Your task to perform on an android device: toggle show notifications on the lock screen Image 0: 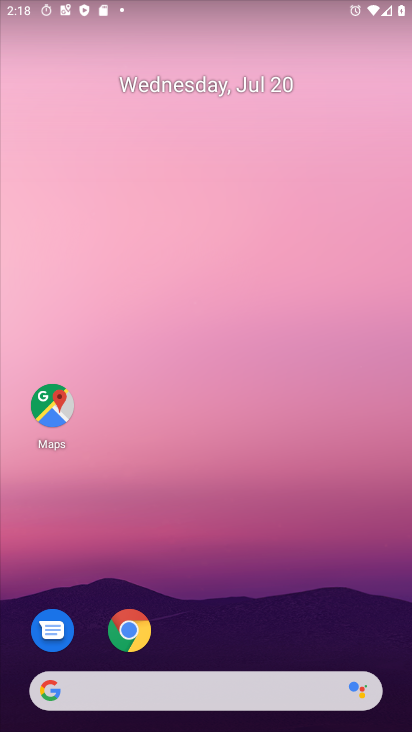
Step 0: drag from (220, 687) to (365, 118)
Your task to perform on an android device: toggle show notifications on the lock screen Image 1: 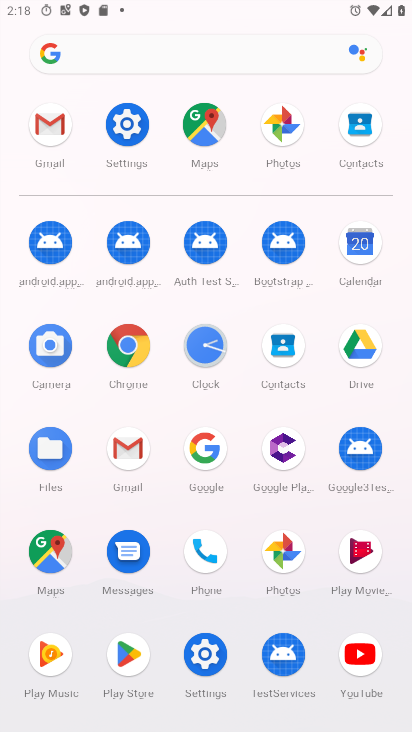
Step 1: click (127, 135)
Your task to perform on an android device: toggle show notifications on the lock screen Image 2: 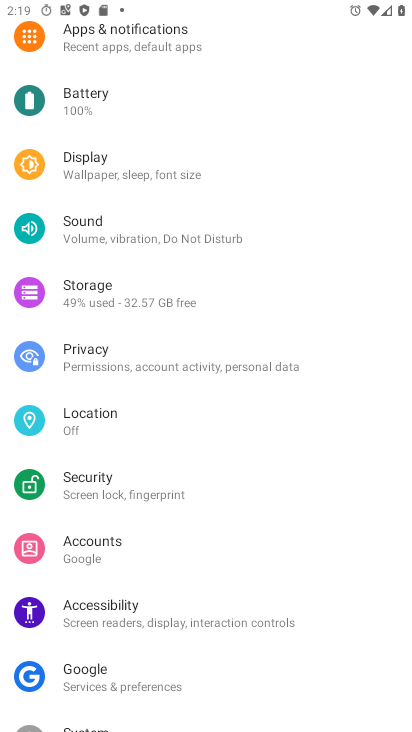
Step 2: drag from (294, 128) to (238, 566)
Your task to perform on an android device: toggle show notifications on the lock screen Image 3: 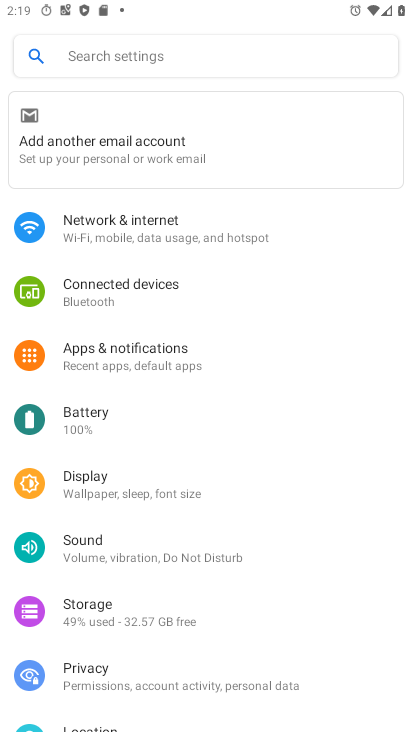
Step 3: click (159, 352)
Your task to perform on an android device: toggle show notifications on the lock screen Image 4: 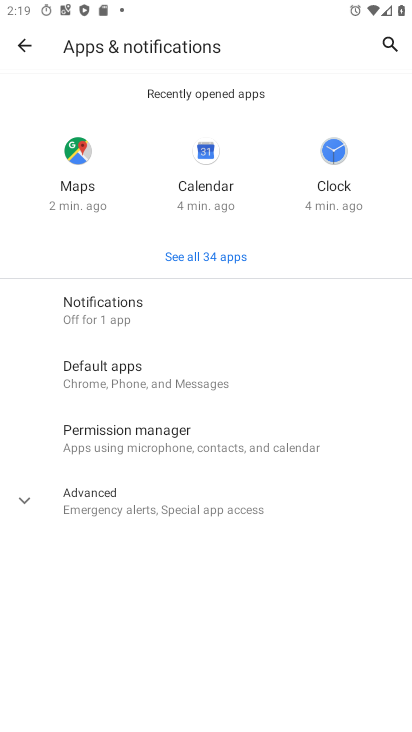
Step 4: click (117, 311)
Your task to perform on an android device: toggle show notifications on the lock screen Image 5: 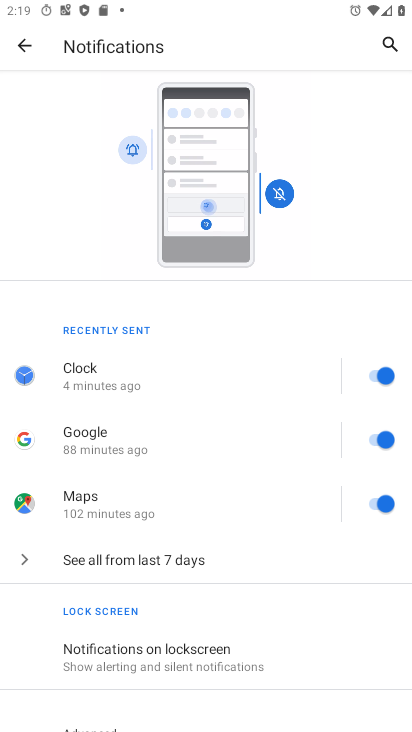
Step 5: click (201, 654)
Your task to perform on an android device: toggle show notifications on the lock screen Image 6: 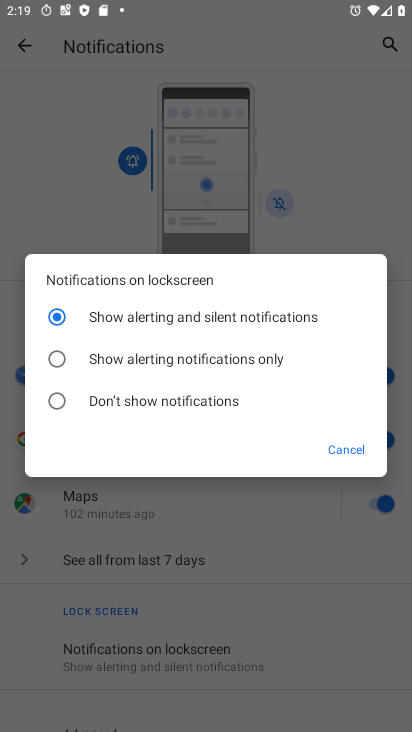
Step 6: click (58, 393)
Your task to perform on an android device: toggle show notifications on the lock screen Image 7: 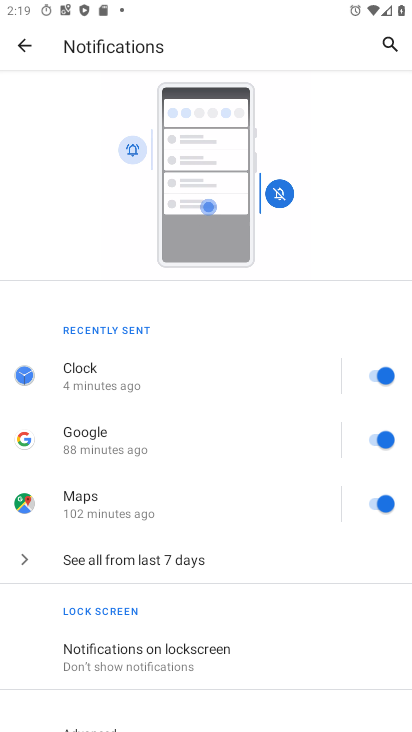
Step 7: task complete